Your task to perform on an android device: Open calendar and show me the second week of next month Image 0: 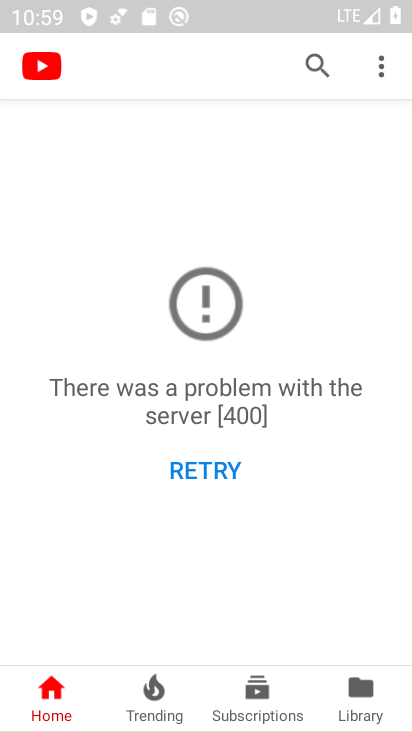
Step 0: press home button
Your task to perform on an android device: Open calendar and show me the second week of next month Image 1: 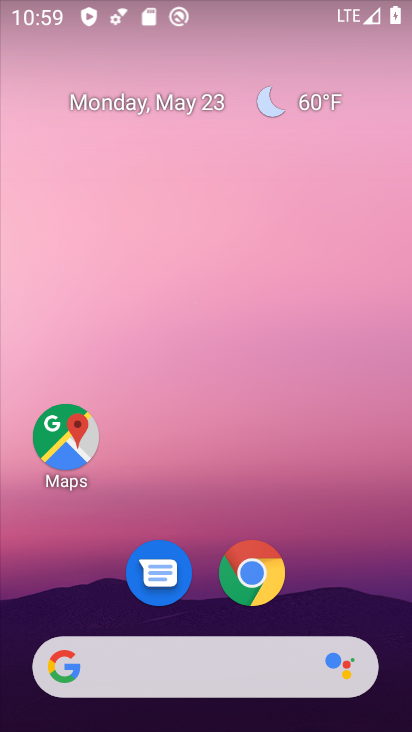
Step 1: drag from (203, 629) to (201, 173)
Your task to perform on an android device: Open calendar and show me the second week of next month Image 2: 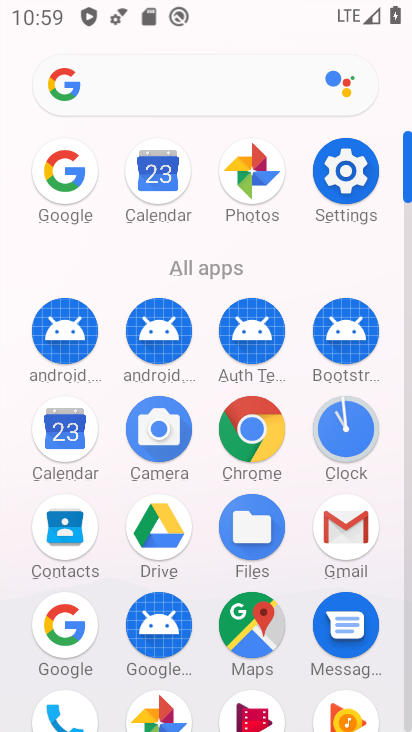
Step 2: click (61, 441)
Your task to perform on an android device: Open calendar and show me the second week of next month Image 3: 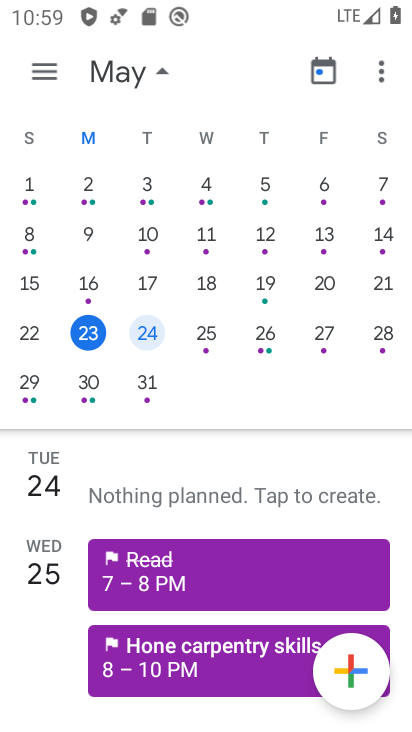
Step 3: drag from (273, 280) to (6, 285)
Your task to perform on an android device: Open calendar and show me the second week of next month Image 4: 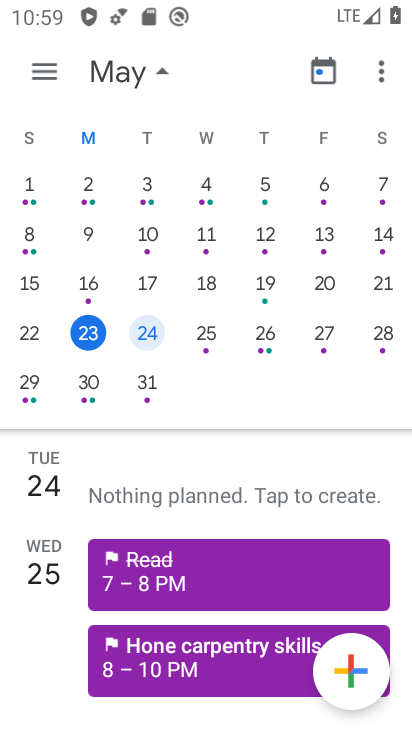
Step 4: drag from (351, 271) to (6, 315)
Your task to perform on an android device: Open calendar and show me the second week of next month Image 5: 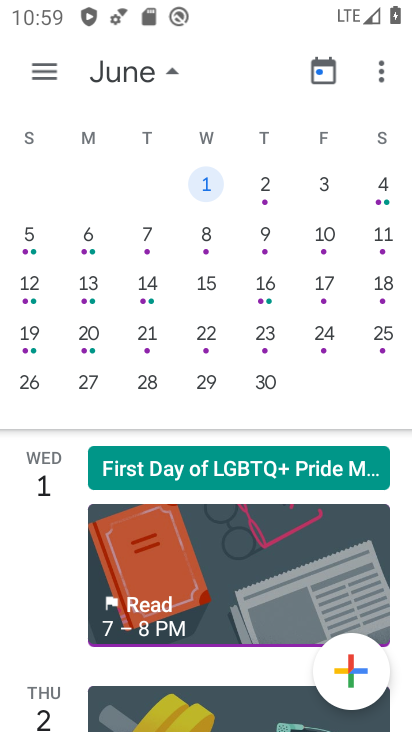
Step 5: click (32, 241)
Your task to perform on an android device: Open calendar and show me the second week of next month Image 6: 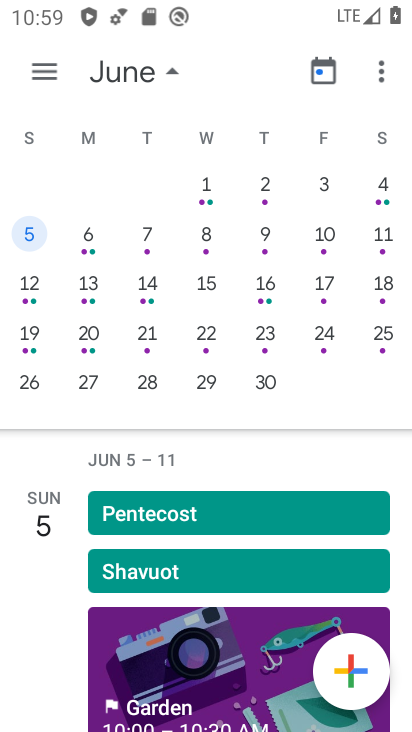
Step 6: task complete